Your task to perform on an android device: create a new album in the google photos Image 0: 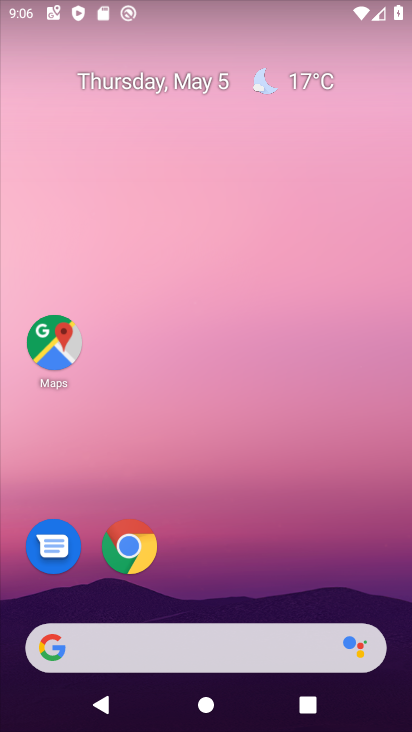
Step 0: drag from (212, 654) to (385, 139)
Your task to perform on an android device: create a new album in the google photos Image 1: 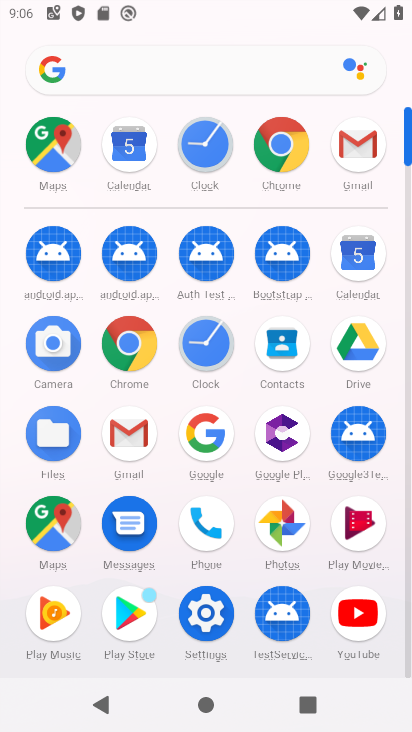
Step 1: click (286, 525)
Your task to perform on an android device: create a new album in the google photos Image 2: 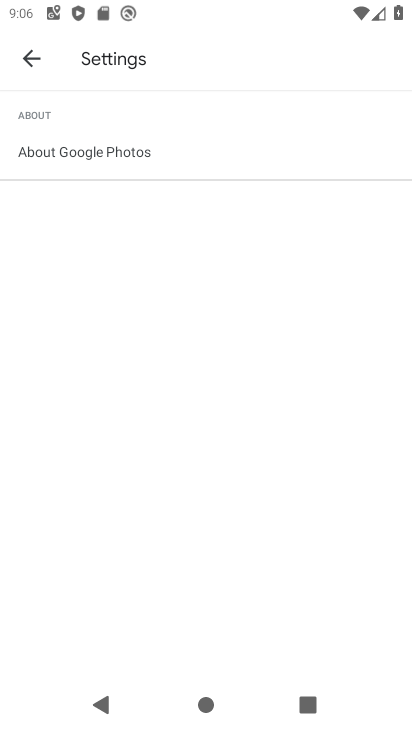
Step 2: click (34, 57)
Your task to perform on an android device: create a new album in the google photos Image 3: 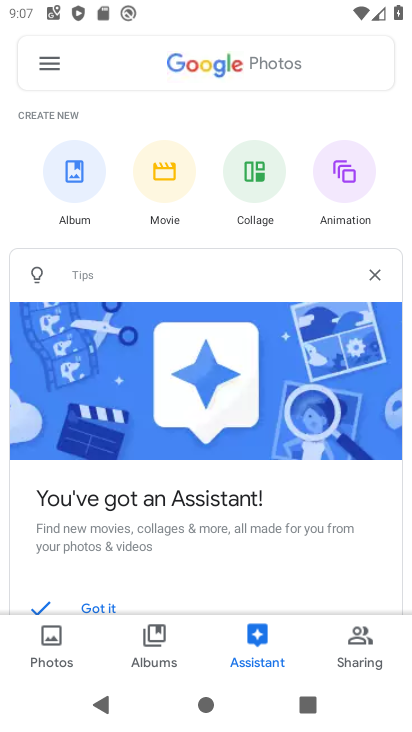
Step 3: click (154, 650)
Your task to perform on an android device: create a new album in the google photos Image 4: 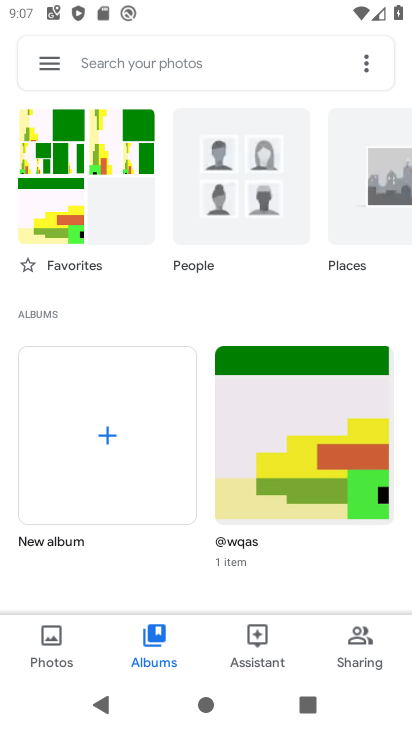
Step 4: click (103, 438)
Your task to perform on an android device: create a new album in the google photos Image 5: 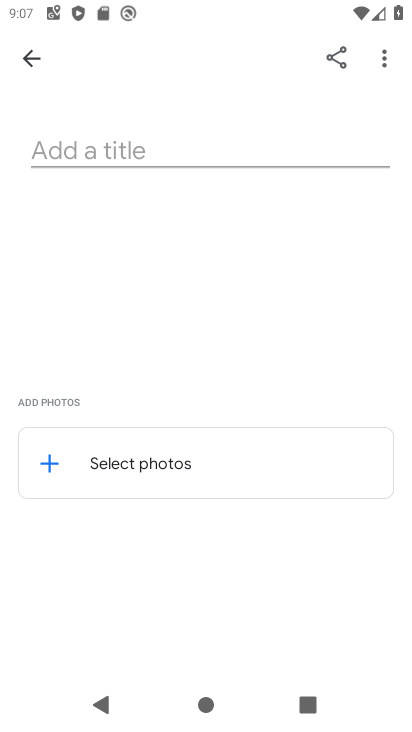
Step 5: click (149, 473)
Your task to perform on an android device: create a new album in the google photos Image 6: 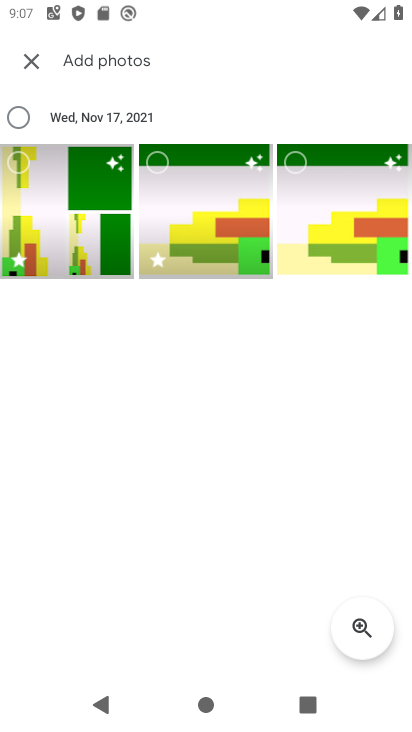
Step 6: click (94, 222)
Your task to perform on an android device: create a new album in the google photos Image 7: 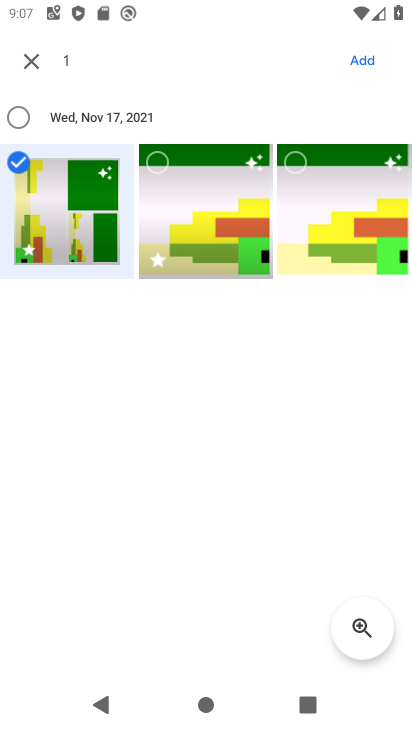
Step 7: click (228, 221)
Your task to perform on an android device: create a new album in the google photos Image 8: 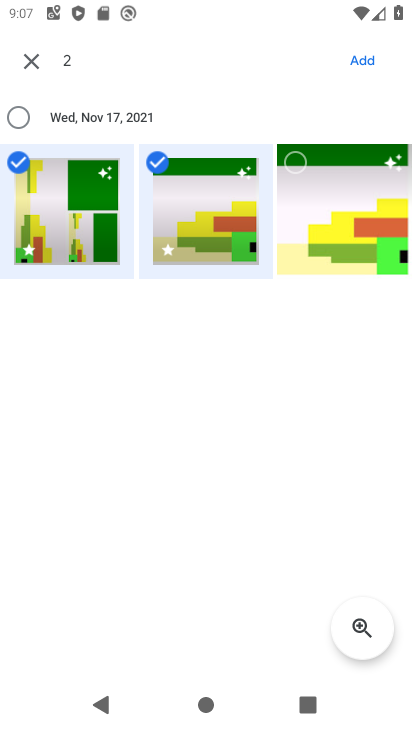
Step 8: click (367, 60)
Your task to perform on an android device: create a new album in the google photos Image 9: 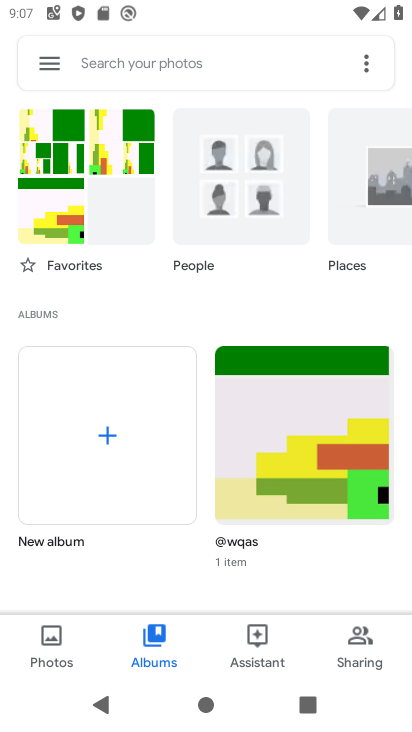
Step 9: task complete